Your task to perform on an android device: check out phone information Image 0: 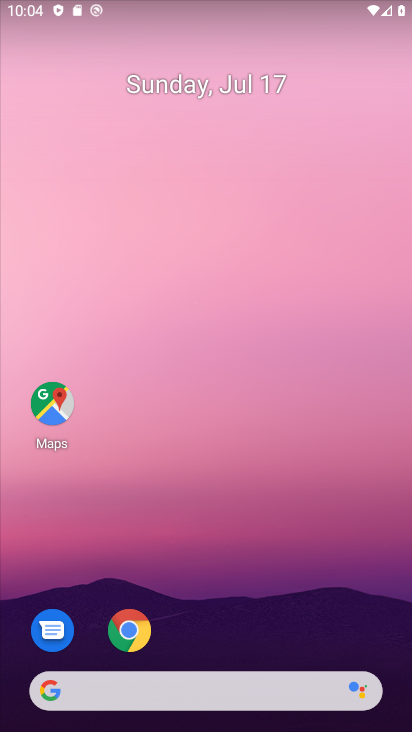
Step 0: drag from (342, 608) to (345, 127)
Your task to perform on an android device: check out phone information Image 1: 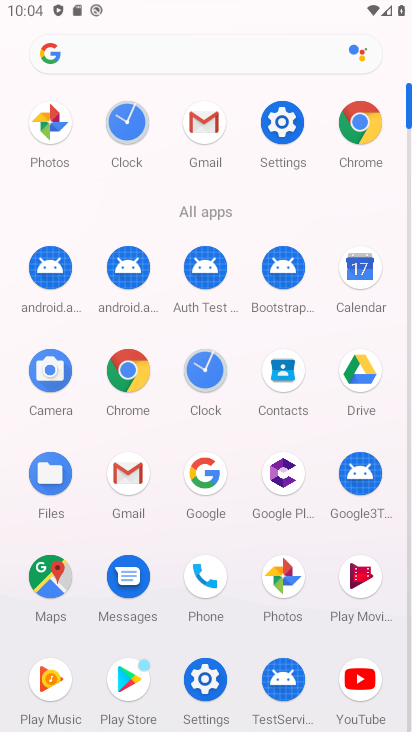
Step 1: click (213, 584)
Your task to perform on an android device: check out phone information Image 2: 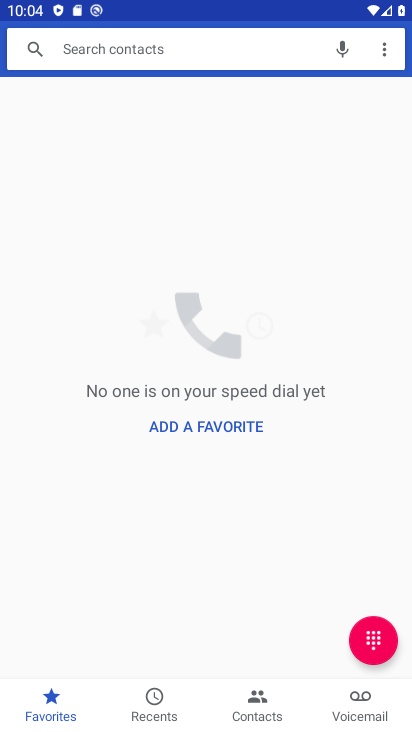
Step 2: task complete